Your task to perform on an android device: toggle sleep mode Image 0: 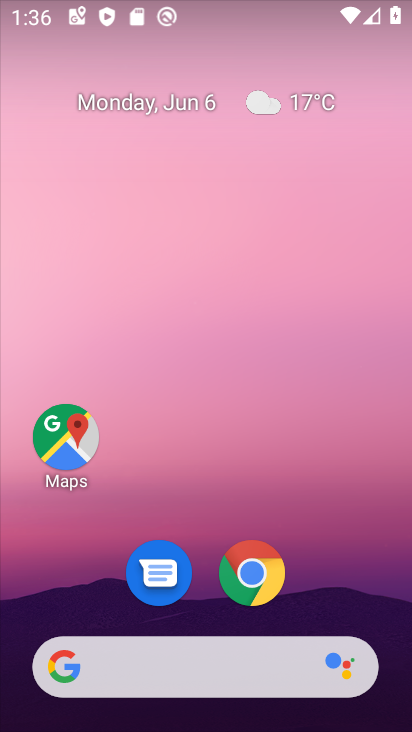
Step 0: drag from (221, 480) to (267, 30)
Your task to perform on an android device: toggle sleep mode Image 1: 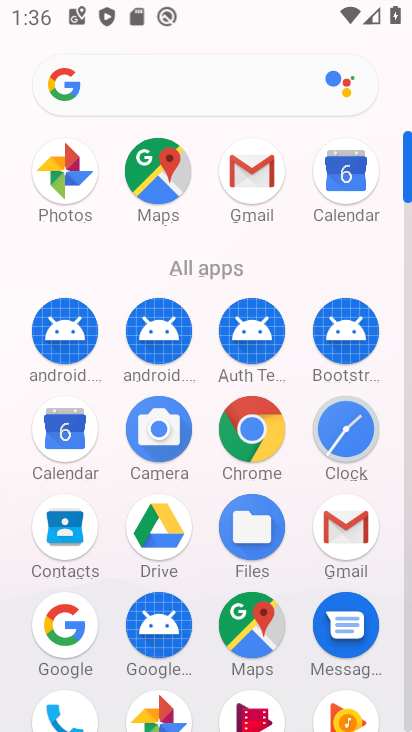
Step 1: drag from (198, 654) to (259, 106)
Your task to perform on an android device: toggle sleep mode Image 2: 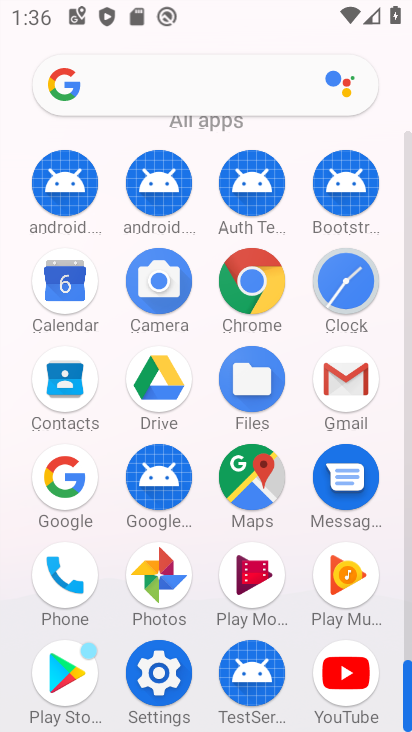
Step 2: click (165, 674)
Your task to perform on an android device: toggle sleep mode Image 3: 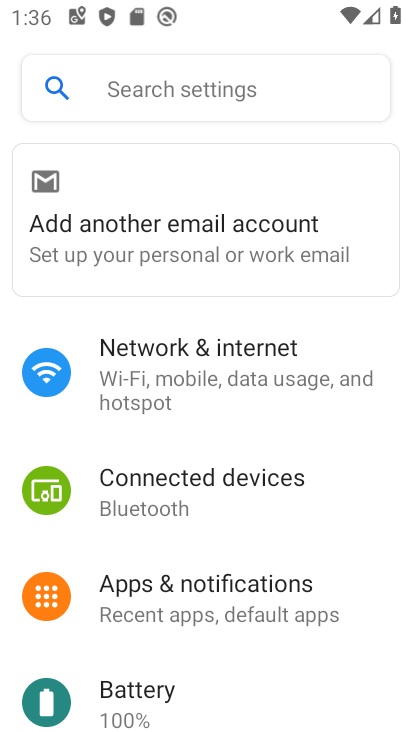
Step 3: click (194, 85)
Your task to perform on an android device: toggle sleep mode Image 4: 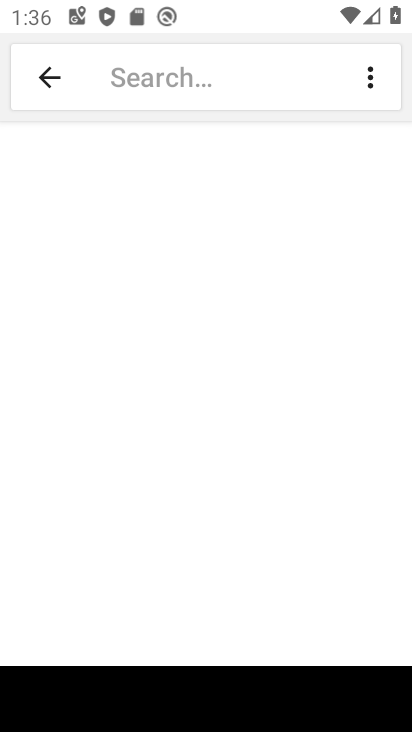
Step 4: type "sleep mode"
Your task to perform on an android device: toggle sleep mode Image 5: 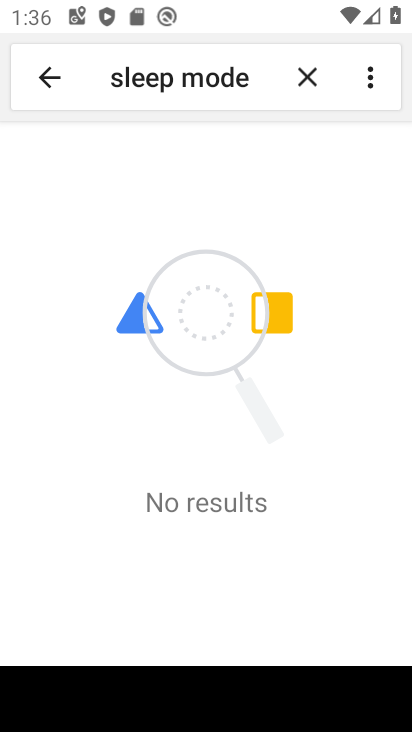
Step 5: task complete